Your task to perform on an android device: clear history in the chrome app Image 0: 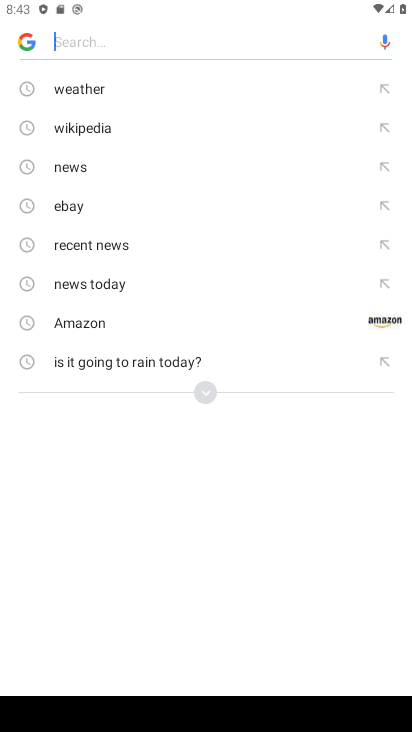
Step 0: press home button
Your task to perform on an android device: clear history in the chrome app Image 1: 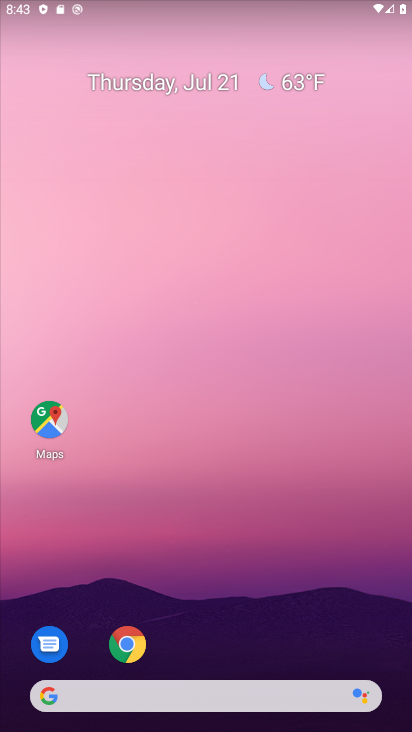
Step 1: click (126, 638)
Your task to perform on an android device: clear history in the chrome app Image 2: 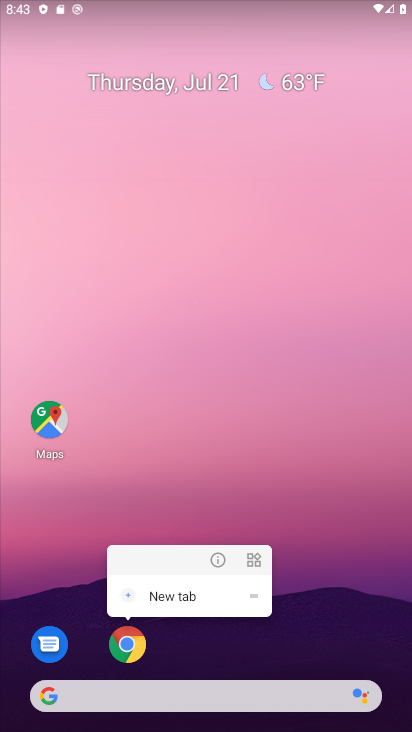
Step 2: click (122, 634)
Your task to perform on an android device: clear history in the chrome app Image 3: 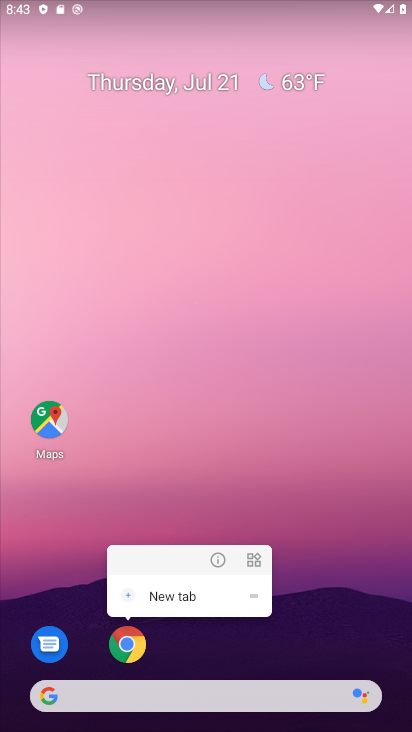
Step 3: click (122, 634)
Your task to perform on an android device: clear history in the chrome app Image 4: 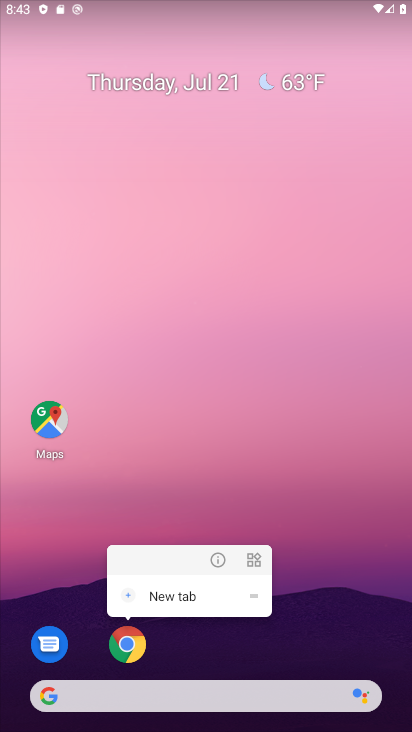
Step 4: drag from (290, 648) to (257, 229)
Your task to perform on an android device: clear history in the chrome app Image 5: 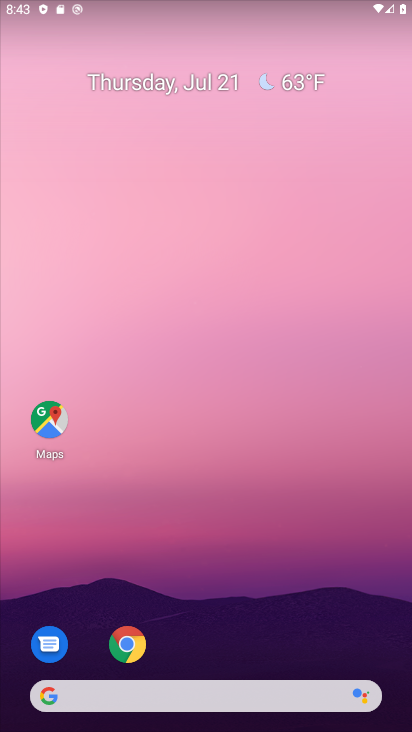
Step 5: drag from (251, 654) to (212, 9)
Your task to perform on an android device: clear history in the chrome app Image 6: 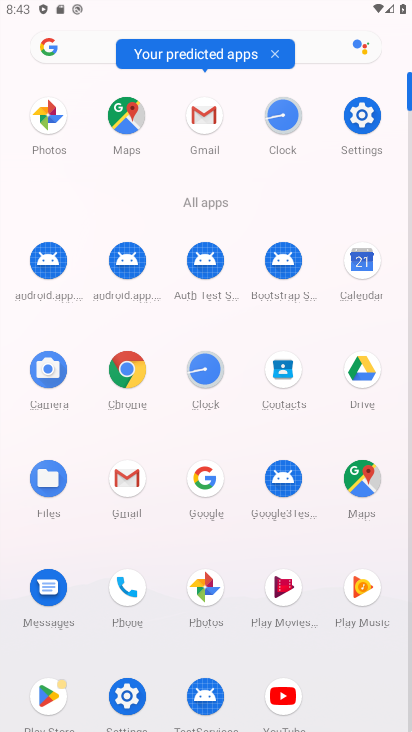
Step 6: click (126, 365)
Your task to perform on an android device: clear history in the chrome app Image 7: 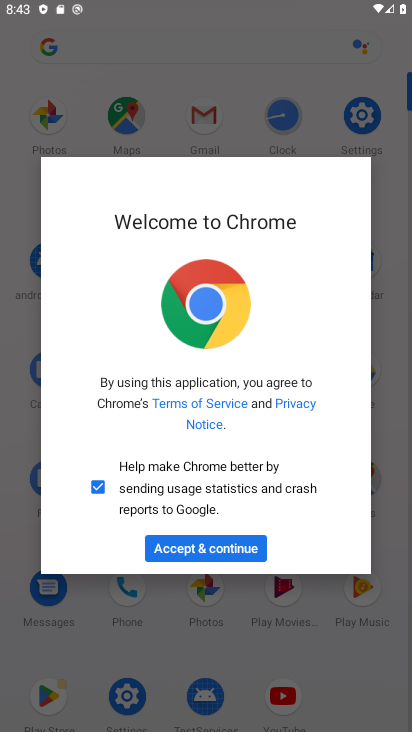
Step 7: click (199, 542)
Your task to perform on an android device: clear history in the chrome app Image 8: 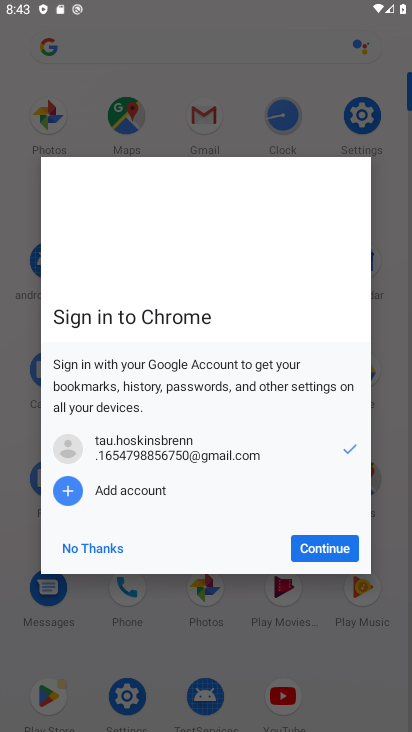
Step 8: click (320, 545)
Your task to perform on an android device: clear history in the chrome app Image 9: 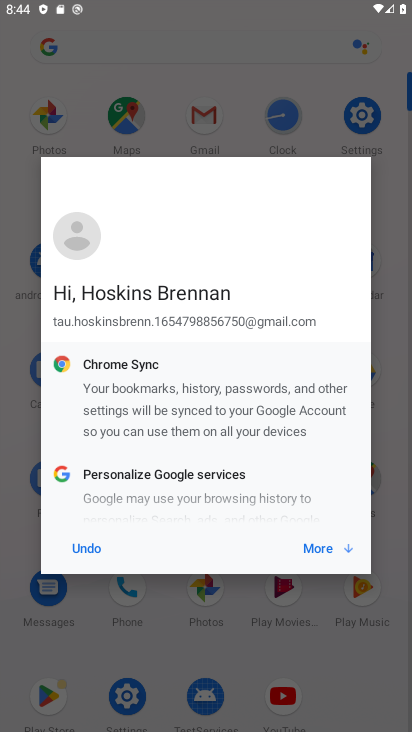
Step 9: click (320, 539)
Your task to perform on an android device: clear history in the chrome app Image 10: 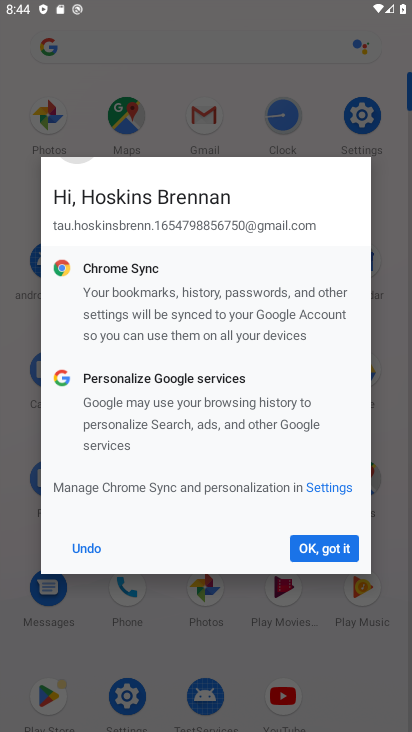
Step 10: click (326, 551)
Your task to perform on an android device: clear history in the chrome app Image 11: 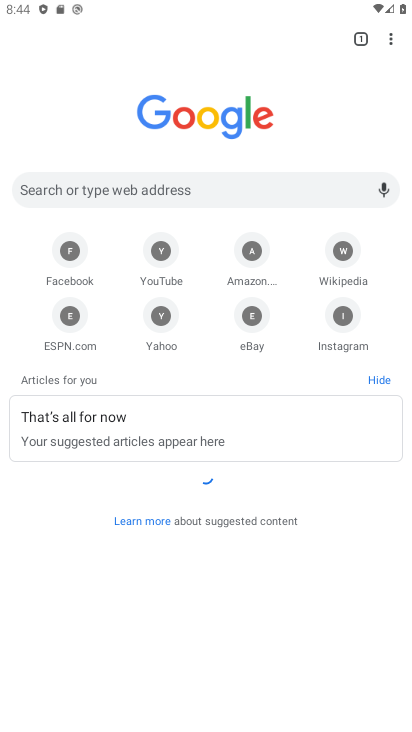
Step 11: click (390, 34)
Your task to perform on an android device: clear history in the chrome app Image 12: 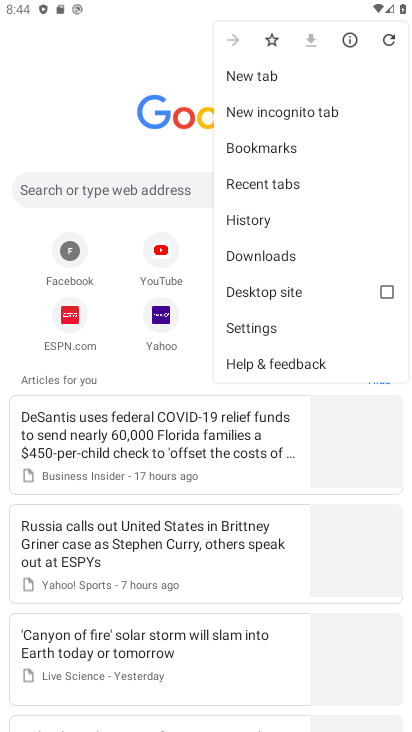
Step 12: click (274, 221)
Your task to perform on an android device: clear history in the chrome app Image 13: 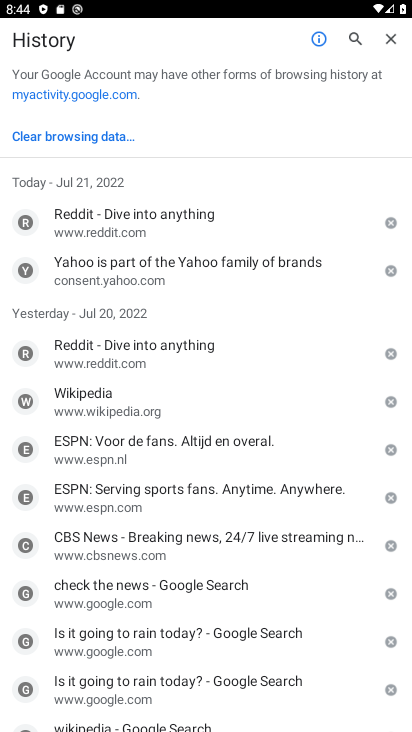
Step 13: click (106, 131)
Your task to perform on an android device: clear history in the chrome app Image 14: 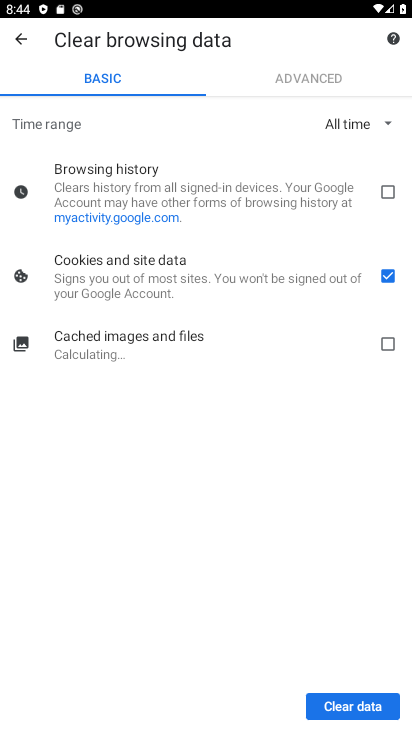
Step 14: click (106, 131)
Your task to perform on an android device: clear history in the chrome app Image 15: 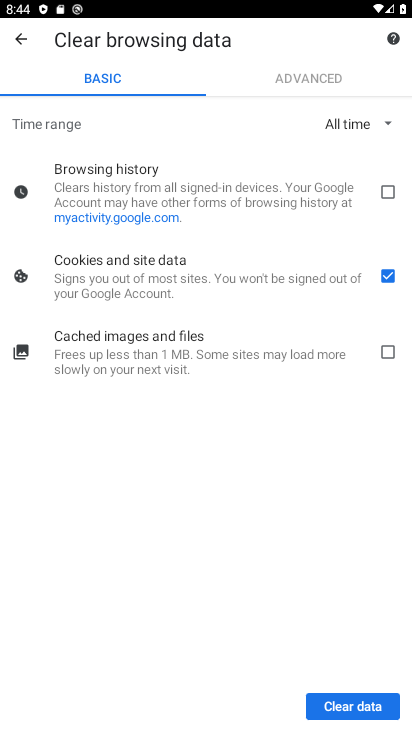
Step 15: click (384, 192)
Your task to perform on an android device: clear history in the chrome app Image 16: 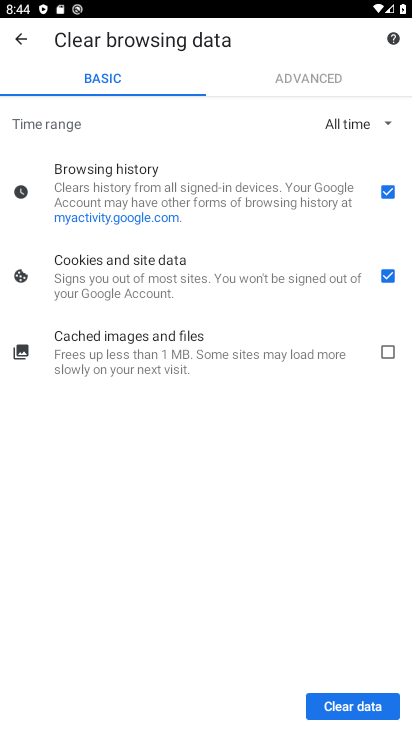
Step 16: click (388, 353)
Your task to perform on an android device: clear history in the chrome app Image 17: 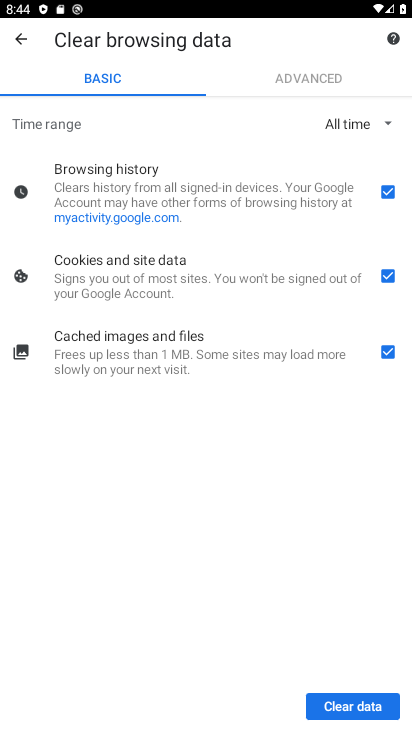
Step 17: click (349, 701)
Your task to perform on an android device: clear history in the chrome app Image 18: 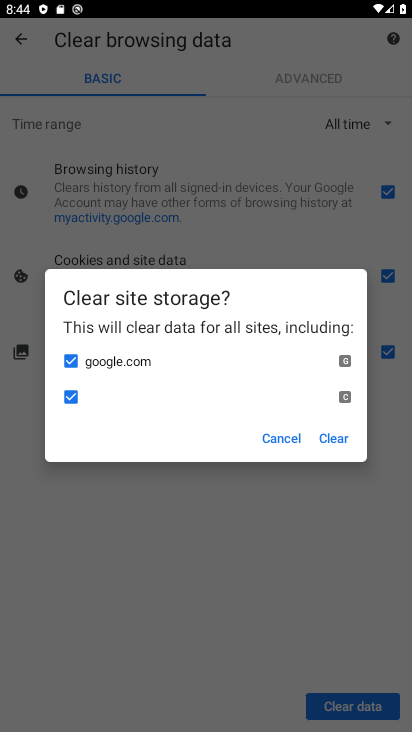
Step 18: click (334, 437)
Your task to perform on an android device: clear history in the chrome app Image 19: 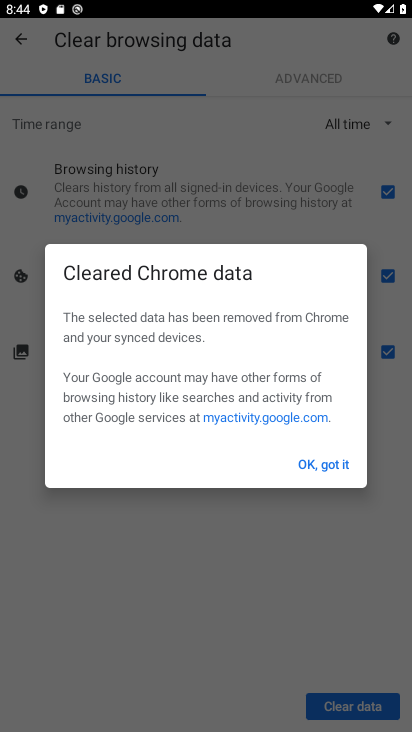
Step 19: click (336, 464)
Your task to perform on an android device: clear history in the chrome app Image 20: 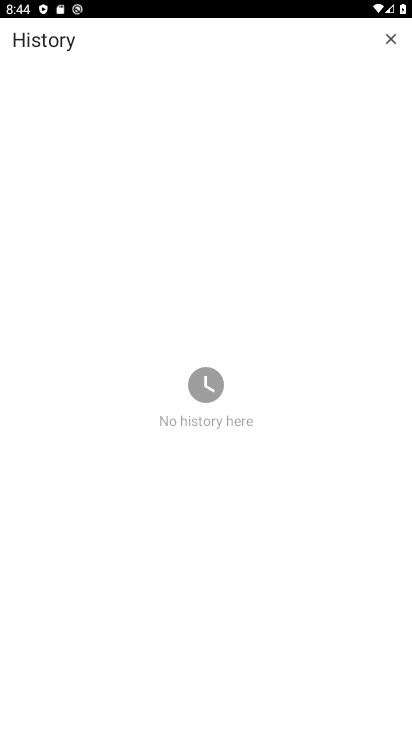
Step 20: task complete